Your task to perform on an android device: Open the calendar and show me this week's events? Image 0: 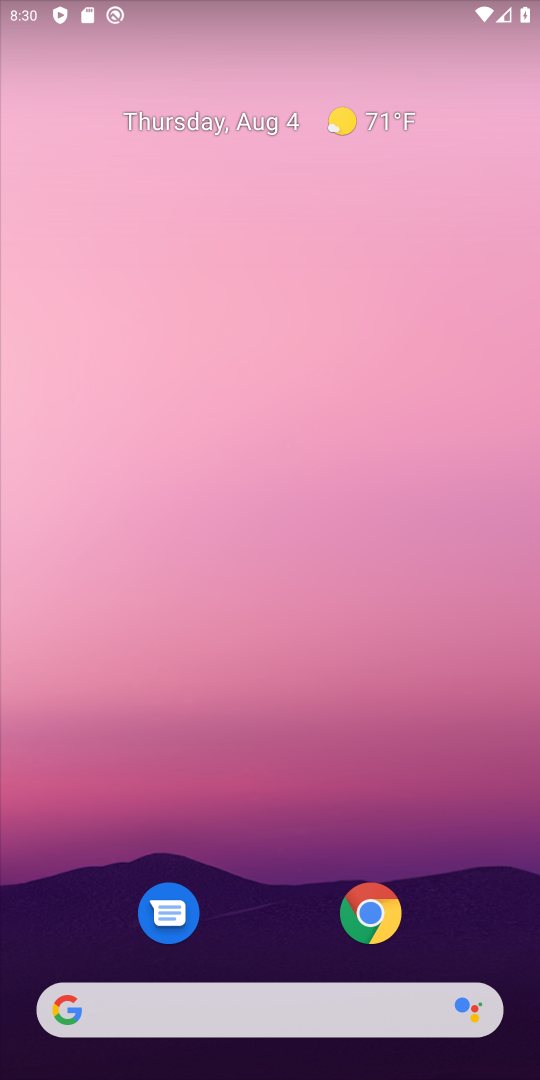
Step 0: drag from (299, 805) to (526, 14)
Your task to perform on an android device: Open the calendar and show me this week's events? Image 1: 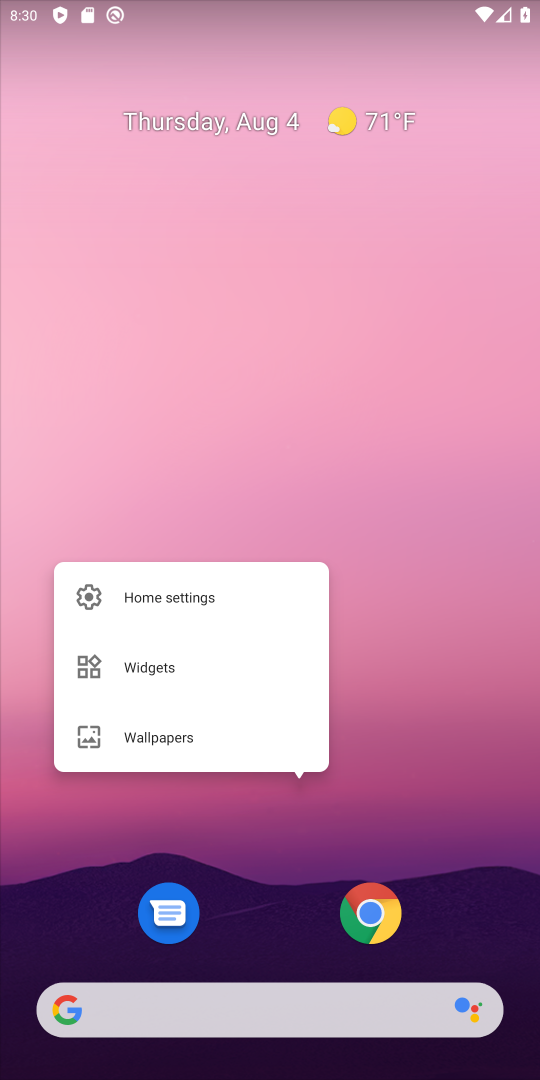
Step 1: click (238, 913)
Your task to perform on an android device: Open the calendar and show me this week's events? Image 2: 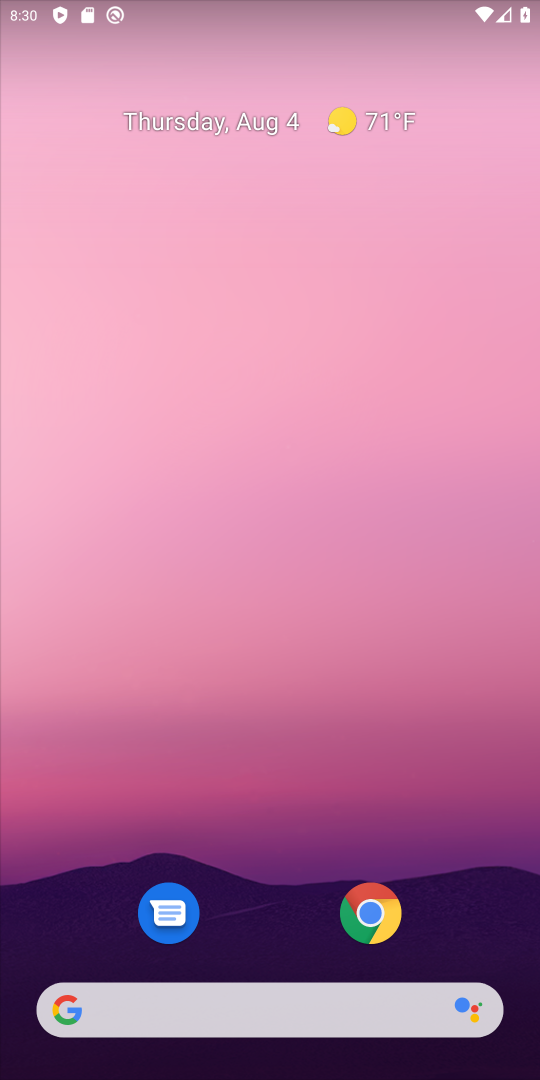
Step 2: drag from (251, 939) to (398, 9)
Your task to perform on an android device: Open the calendar and show me this week's events? Image 3: 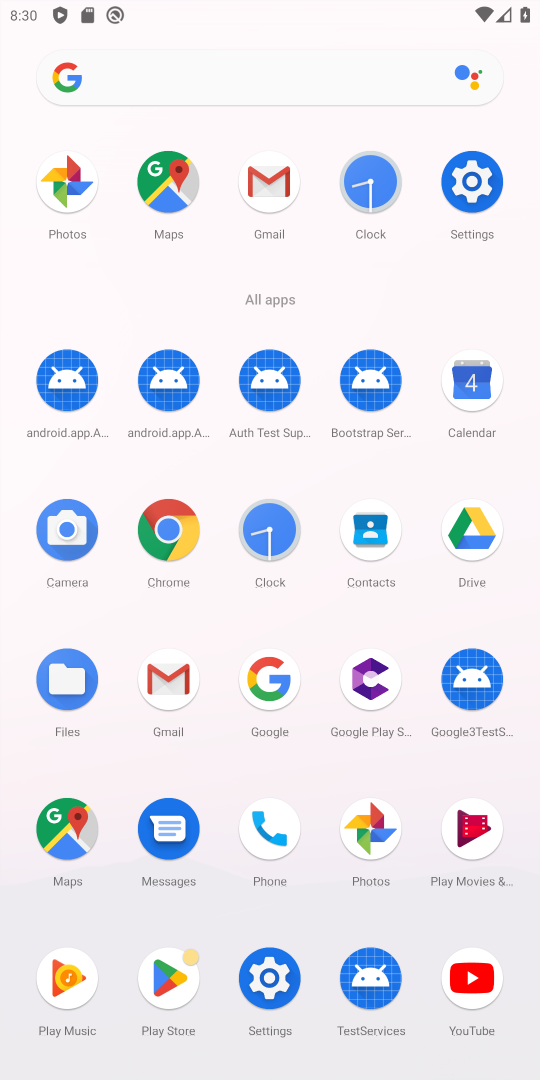
Step 3: click (469, 377)
Your task to perform on an android device: Open the calendar and show me this week's events? Image 4: 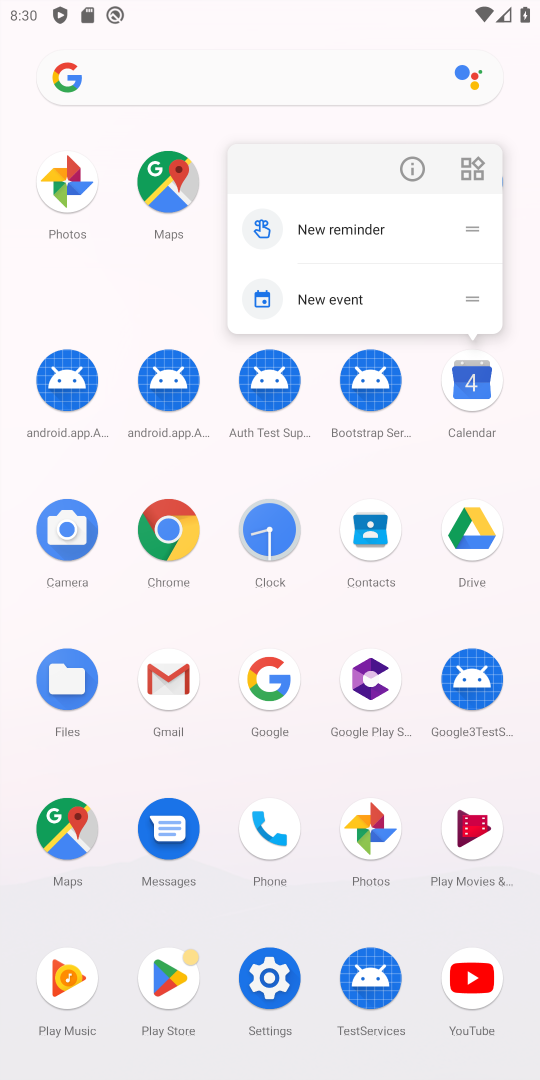
Step 4: click (400, 161)
Your task to perform on an android device: Open the calendar and show me this week's events? Image 5: 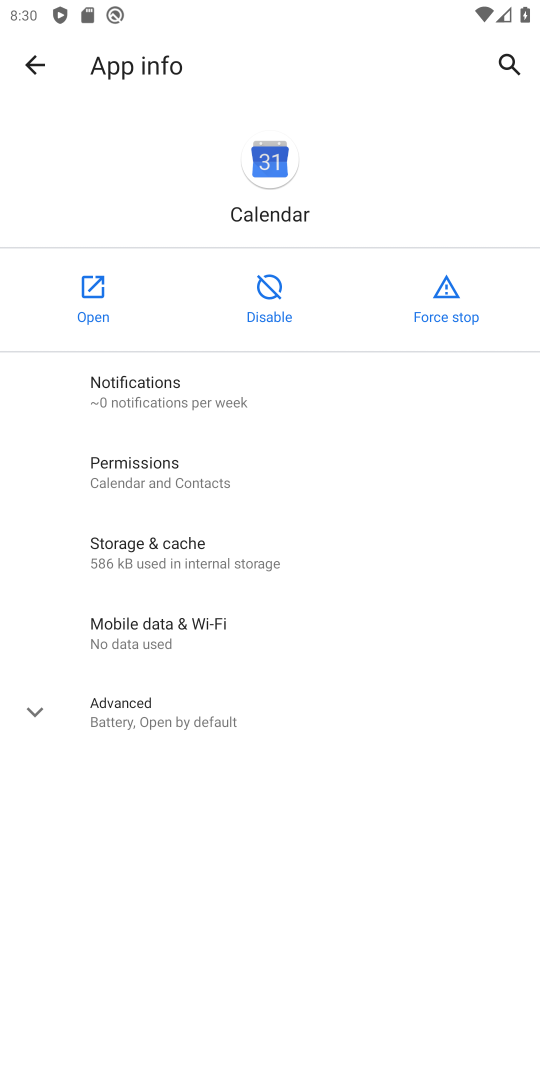
Step 5: click (90, 281)
Your task to perform on an android device: Open the calendar and show me this week's events? Image 6: 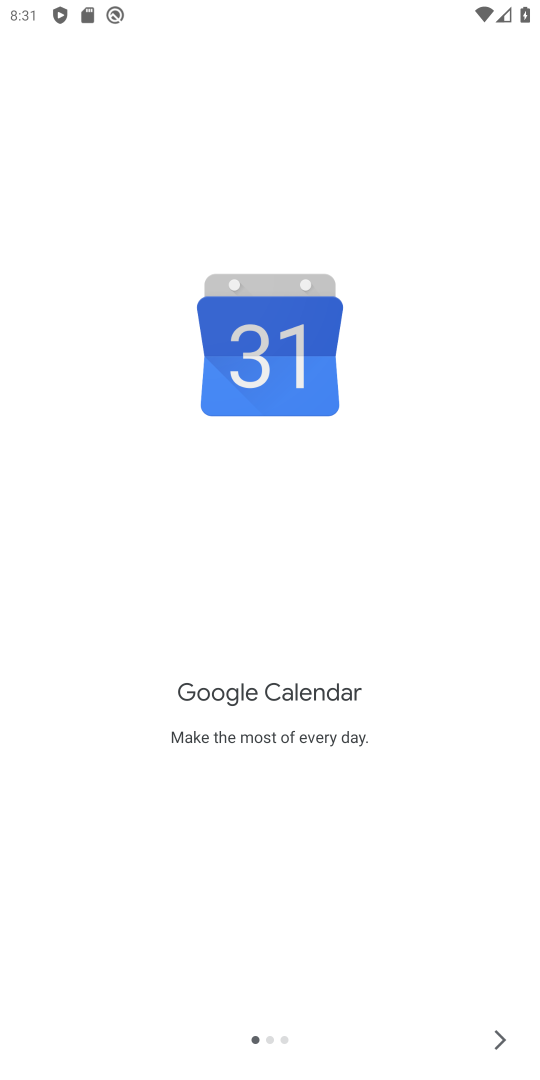
Step 6: drag from (267, 607) to (325, 248)
Your task to perform on an android device: Open the calendar and show me this week's events? Image 7: 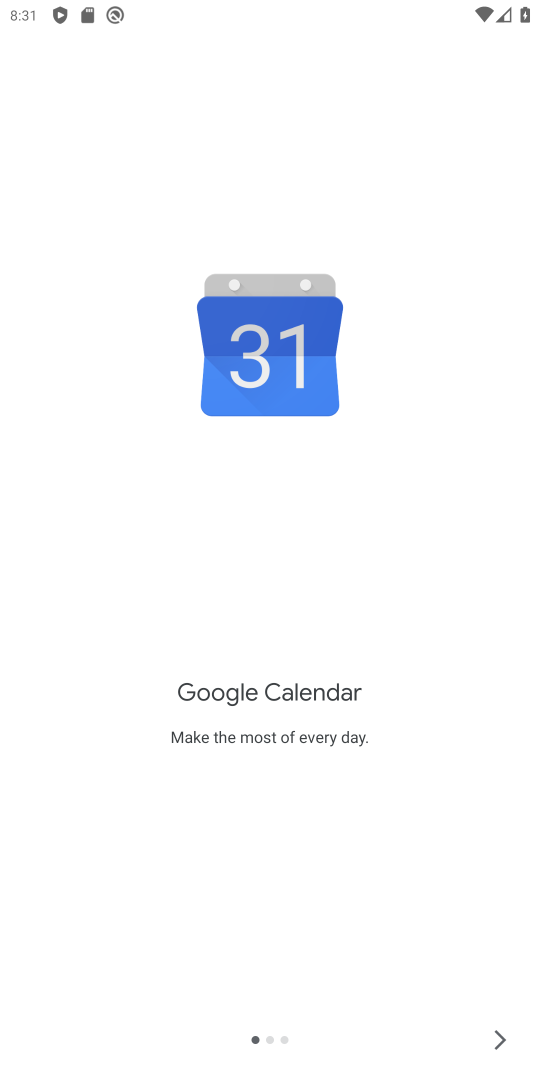
Step 7: click (497, 1047)
Your task to perform on an android device: Open the calendar and show me this week's events? Image 8: 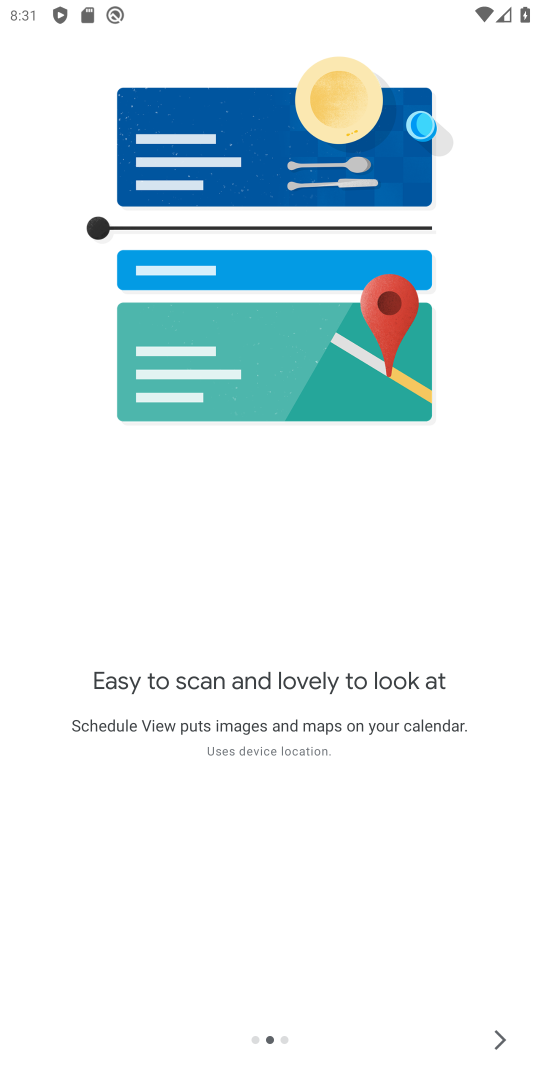
Step 8: click (452, 1034)
Your task to perform on an android device: Open the calendar and show me this week's events? Image 9: 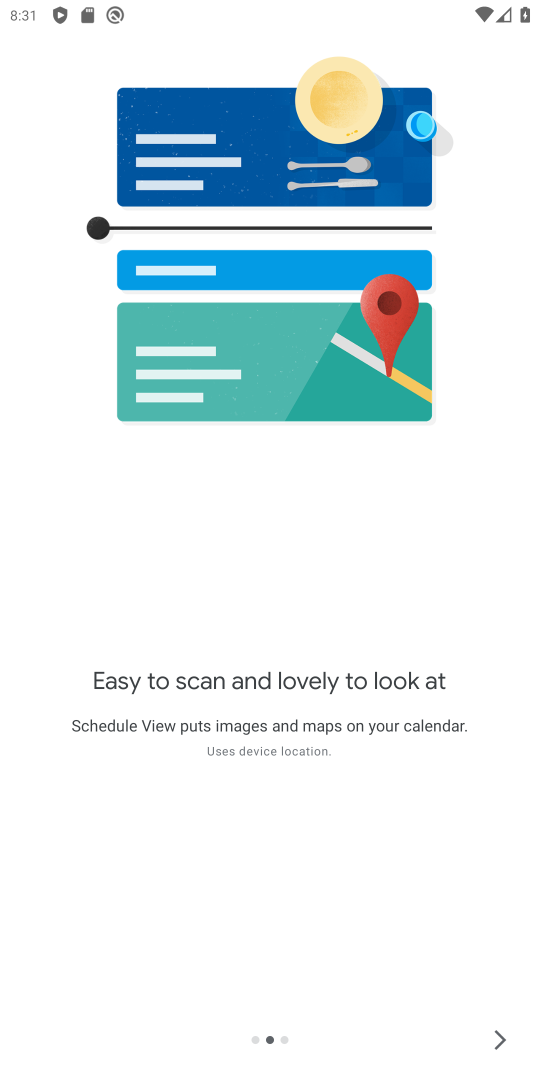
Step 9: click (513, 1008)
Your task to perform on an android device: Open the calendar and show me this week's events? Image 10: 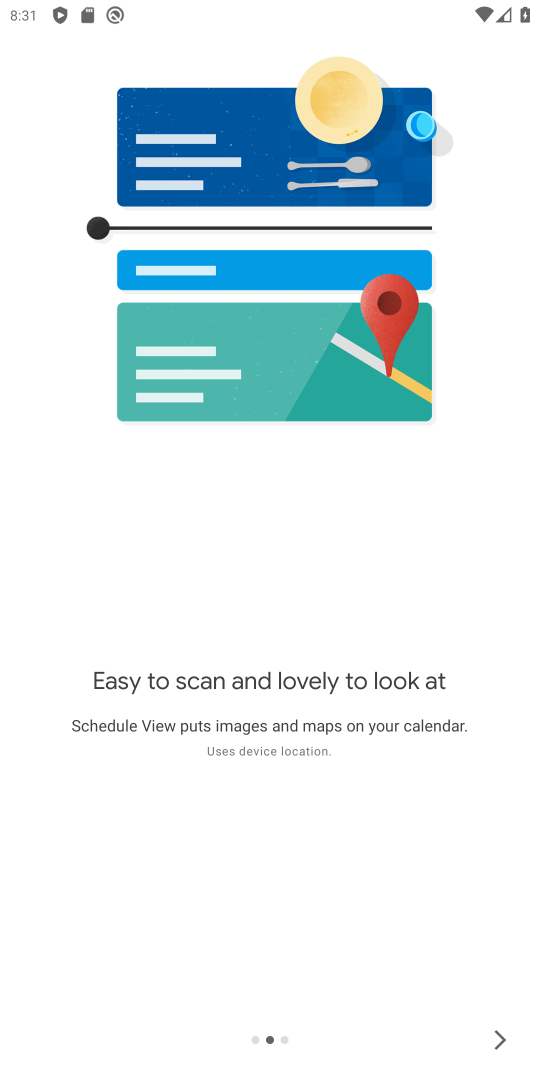
Step 10: click (501, 1020)
Your task to perform on an android device: Open the calendar and show me this week's events? Image 11: 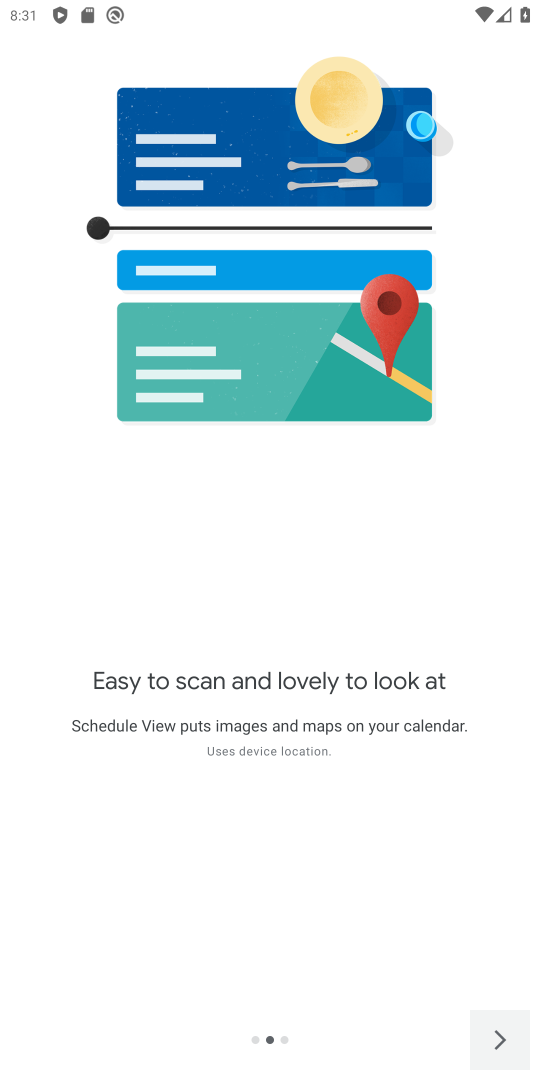
Step 11: click (501, 1020)
Your task to perform on an android device: Open the calendar and show me this week's events? Image 12: 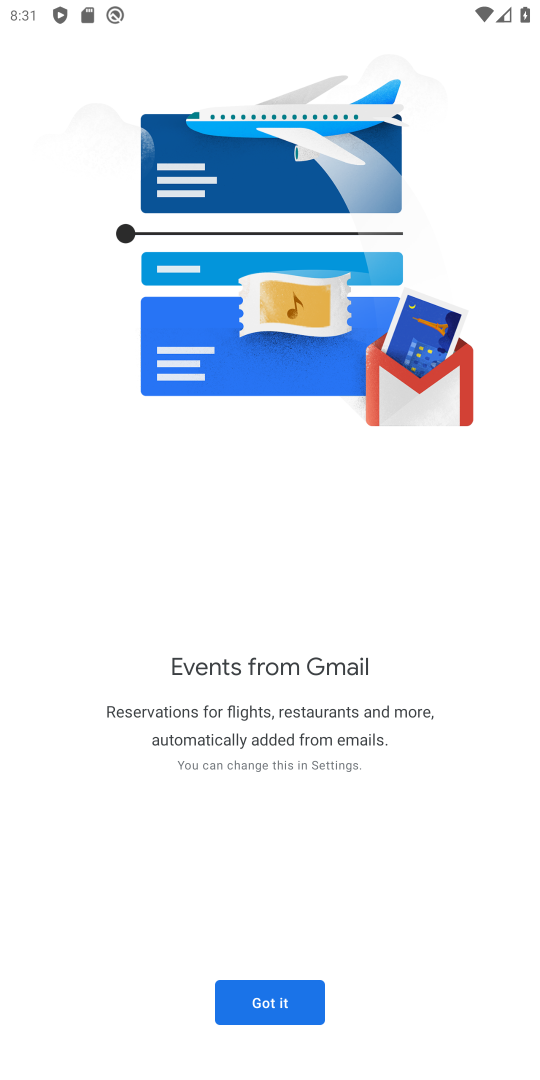
Step 12: click (254, 981)
Your task to perform on an android device: Open the calendar and show me this week's events? Image 13: 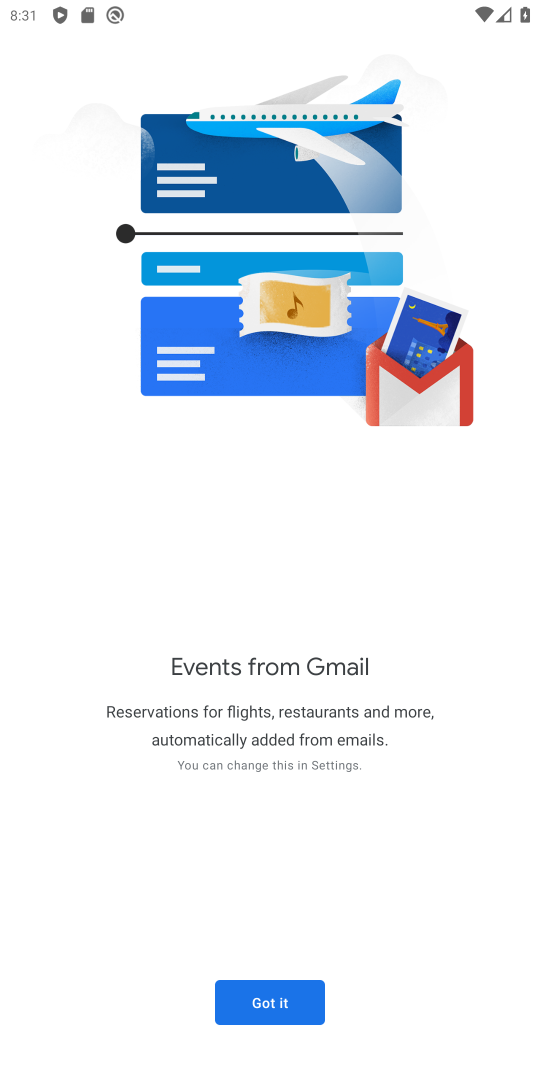
Step 13: click (273, 994)
Your task to perform on an android device: Open the calendar and show me this week's events? Image 14: 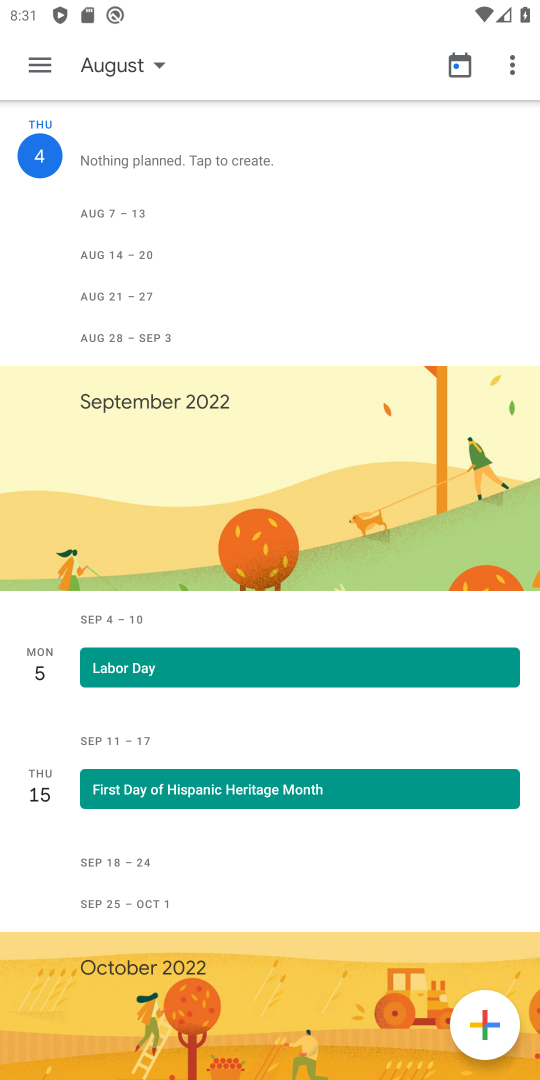
Step 14: click (128, 64)
Your task to perform on an android device: Open the calendar and show me this week's events? Image 15: 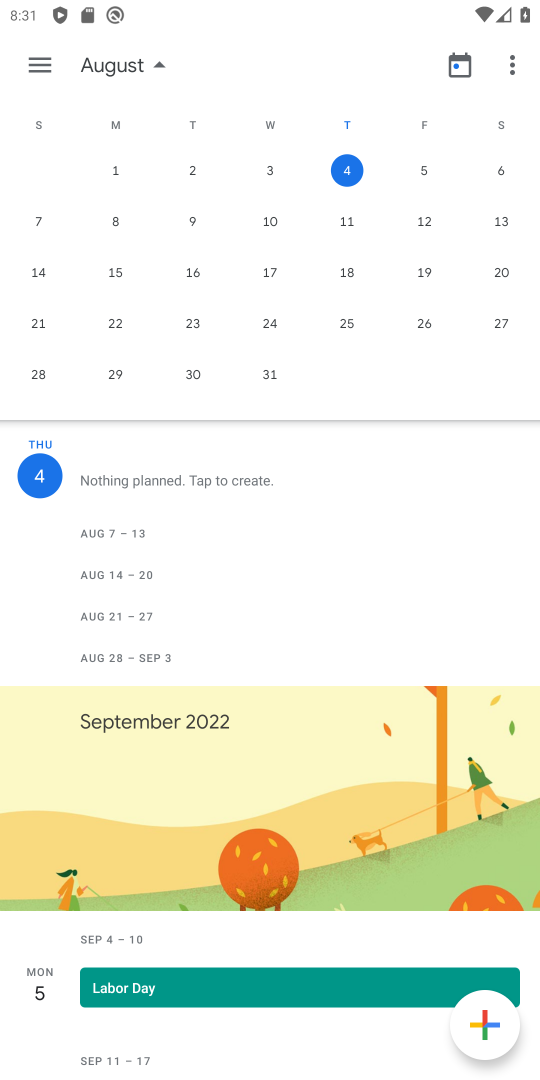
Step 15: click (416, 164)
Your task to perform on an android device: Open the calendar and show me this week's events? Image 16: 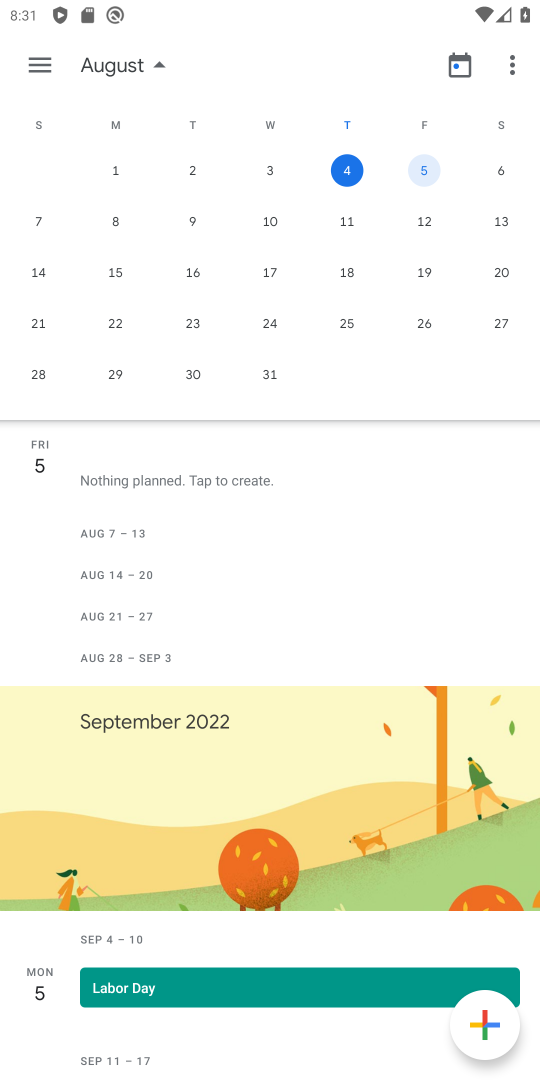
Step 16: task complete